Your task to perform on an android device: empty trash in google photos Image 0: 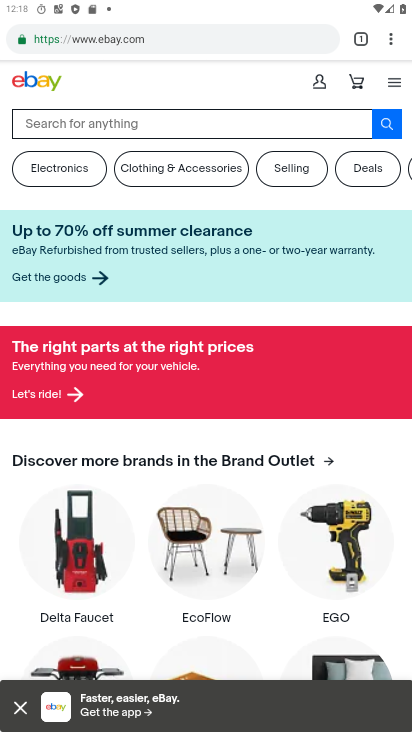
Step 0: press home button
Your task to perform on an android device: empty trash in google photos Image 1: 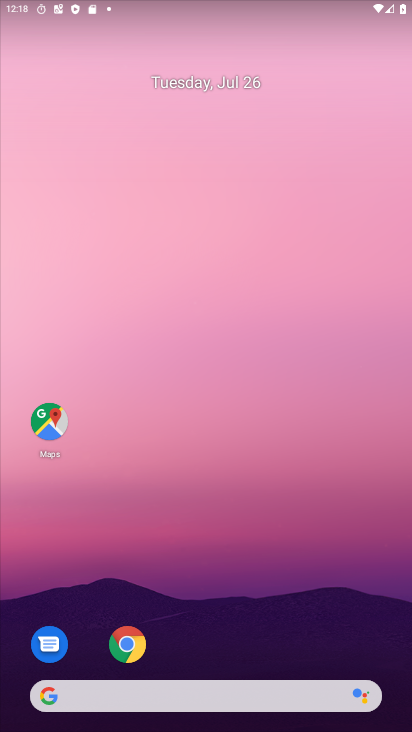
Step 1: drag from (296, 592) to (234, 65)
Your task to perform on an android device: empty trash in google photos Image 2: 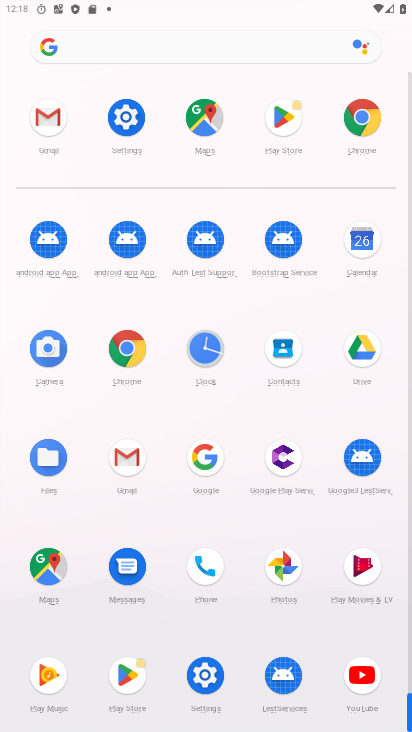
Step 2: click (286, 565)
Your task to perform on an android device: empty trash in google photos Image 3: 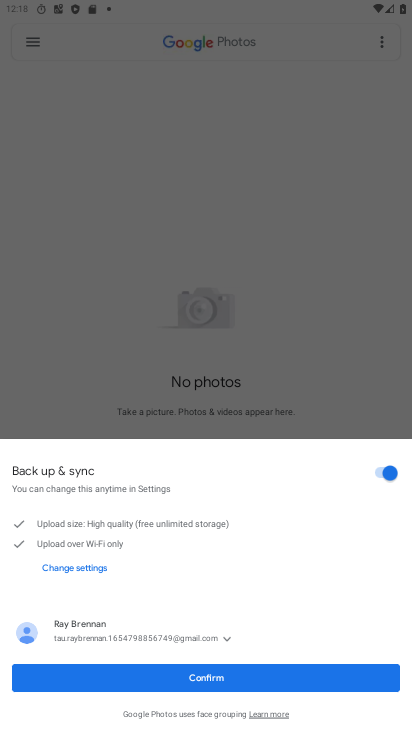
Step 3: click (225, 671)
Your task to perform on an android device: empty trash in google photos Image 4: 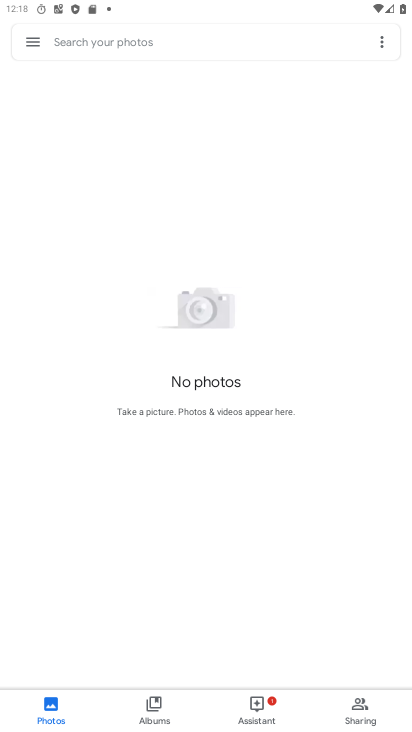
Step 4: click (29, 45)
Your task to perform on an android device: empty trash in google photos Image 5: 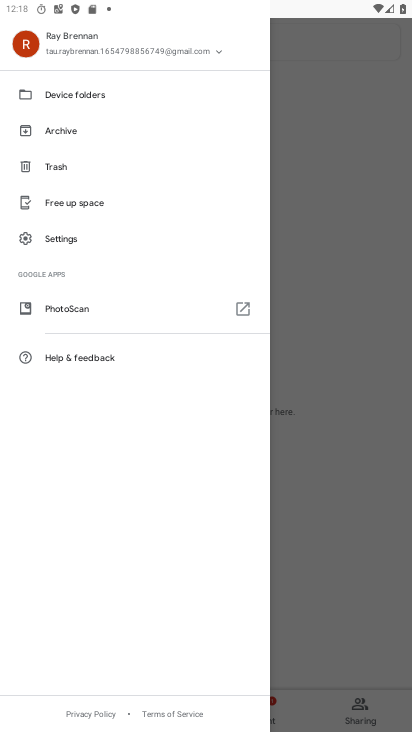
Step 5: click (47, 242)
Your task to perform on an android device: empty trash in google photos Image 6: 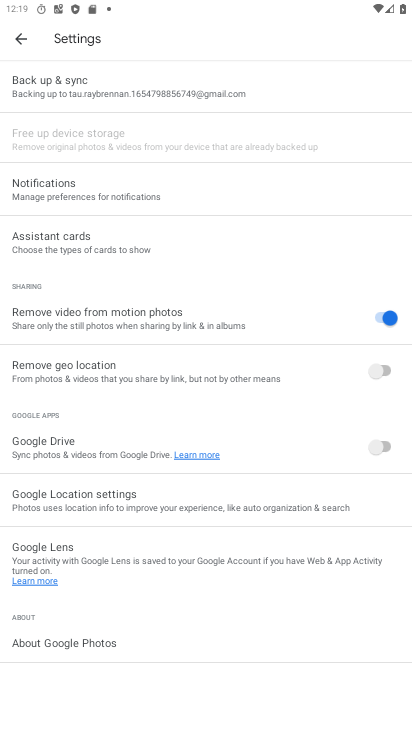
Step 6: click (12, 35)
Your task to perform on an android device: empty trash in google photos Image 7: 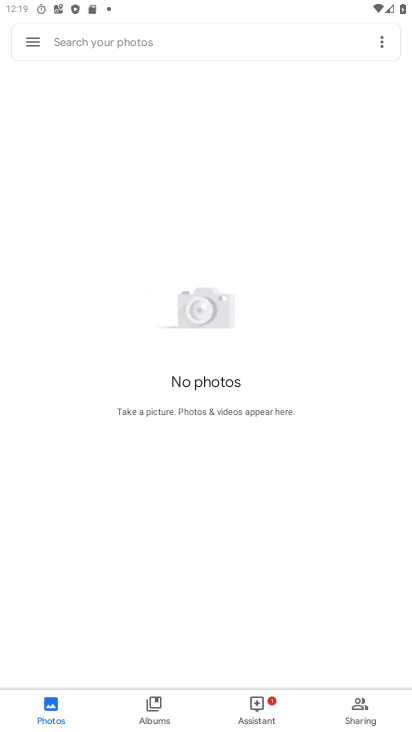
Step 7: click (39, 37)
Your task to perform on an android device: empty trash in google photos Image 8: 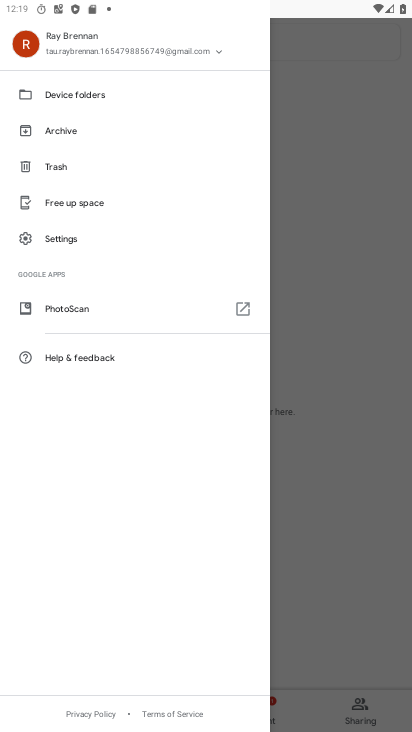
Step 8: click (77, 164)
Your task to perform on an android device: empty trash in google photos Image 9: 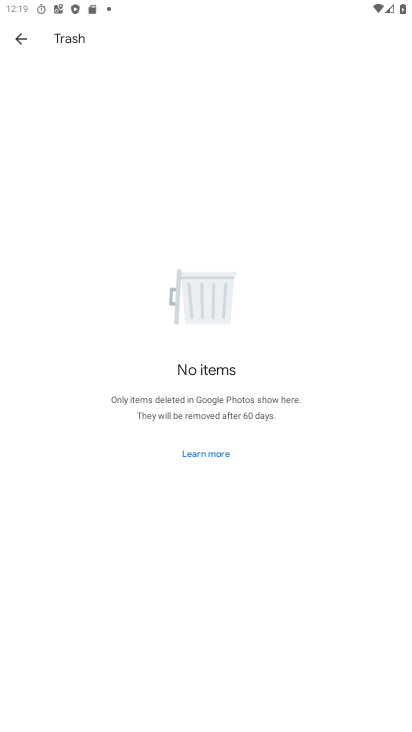
Step 9: task complete